Your task to perform on an android device: Turn on the flashlight Image 0: 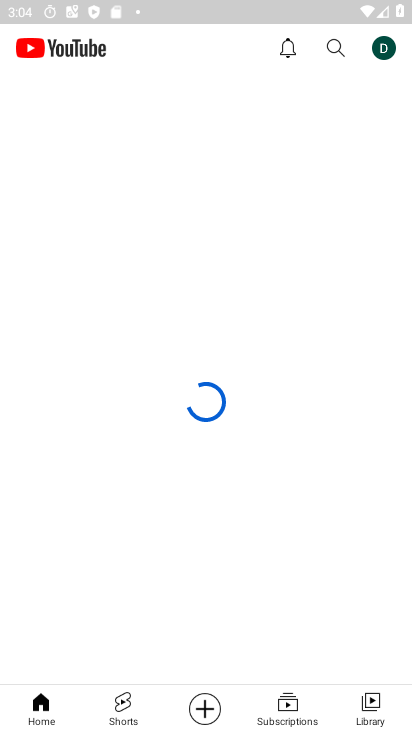
Step 0: press home button
Your task to perform on an android device: Turn on the flashlight Image 1: 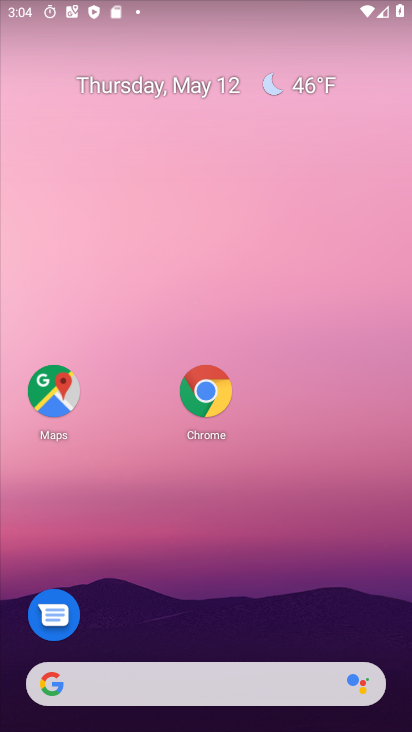
Step 1: drag from (214, 614) to (211, 37)
Your task to perform on an android device: Turn on the flashlight Image 2: 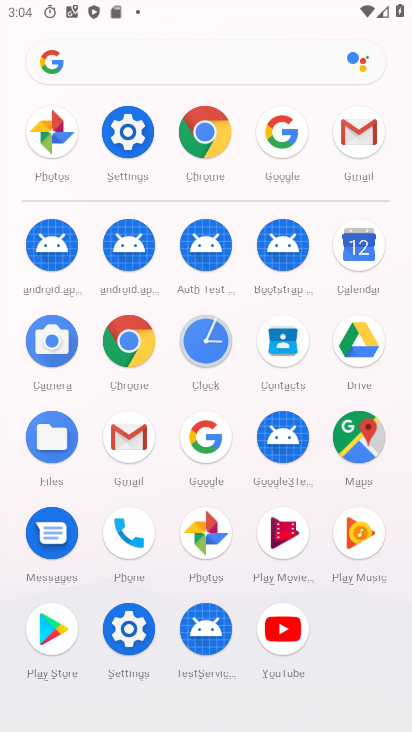
Step 2: click (123, 131)
Your task to perform on an android device: Turn on the flashlight Image 3: 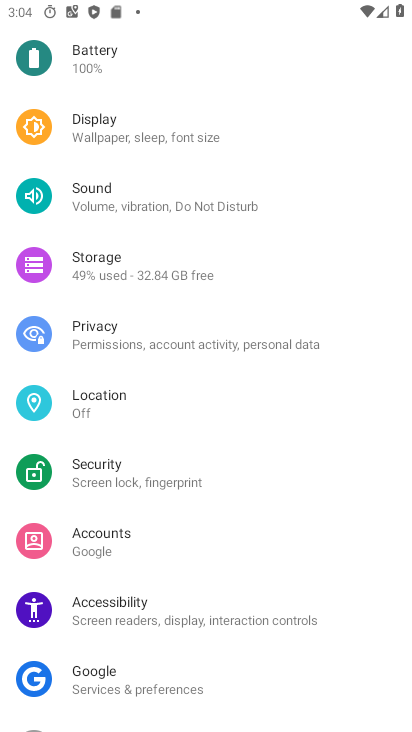
Step 3: drag from (134, 116) to (176, 603)
Your task to perform on an android device: Turn on the flashlight Image 4: 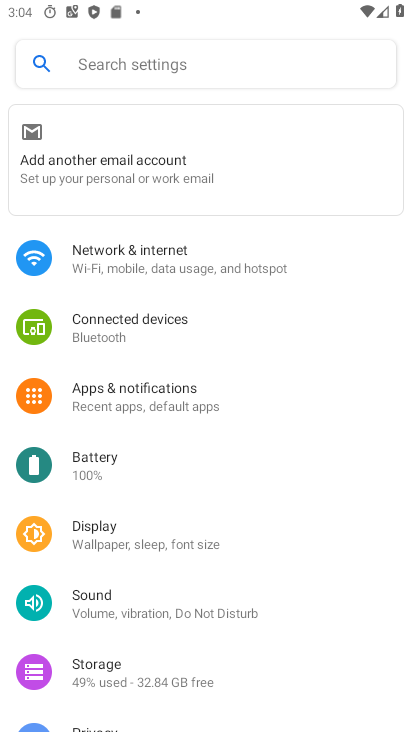
Step 4: click (153, 62)
Your task to perform on an android device: Turn on the flashlight Image 5: 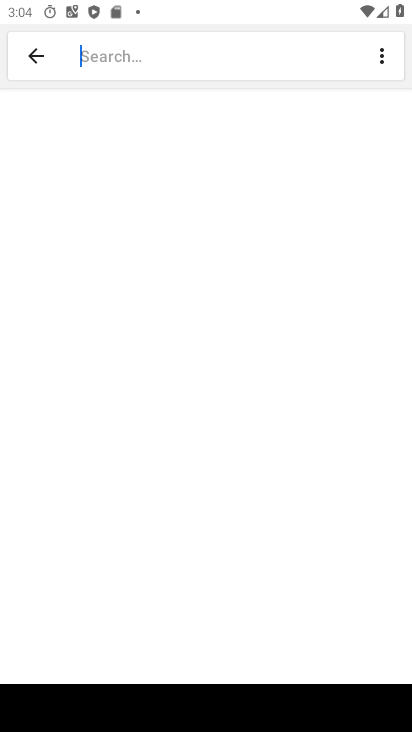
Step 5: type "flash"
Your task to perform on an android device: Turn on the flashlight Image 6: 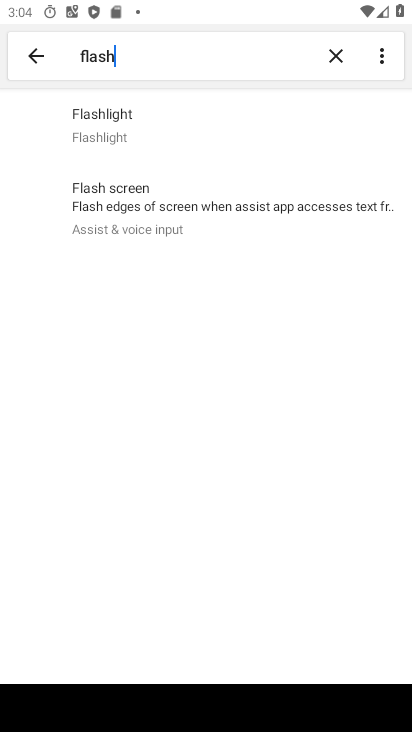
Step 6: task complete